Your task to perform on an android device: find snoozed emails in the gmail app Image 0: 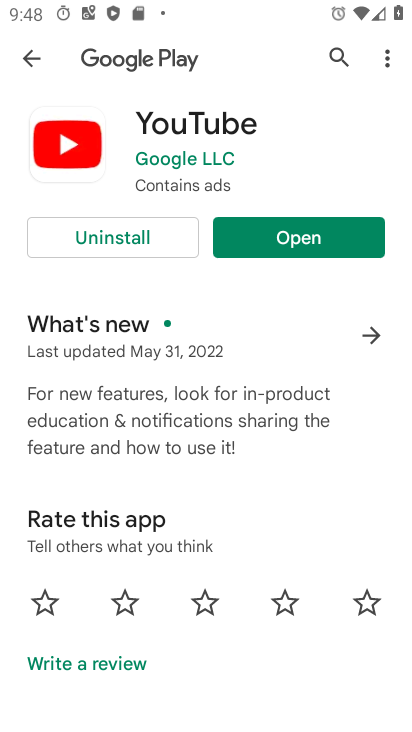
Step 0: press home button
Your task to perform on an android device: find snoozed emails in the gmail app Image 1: 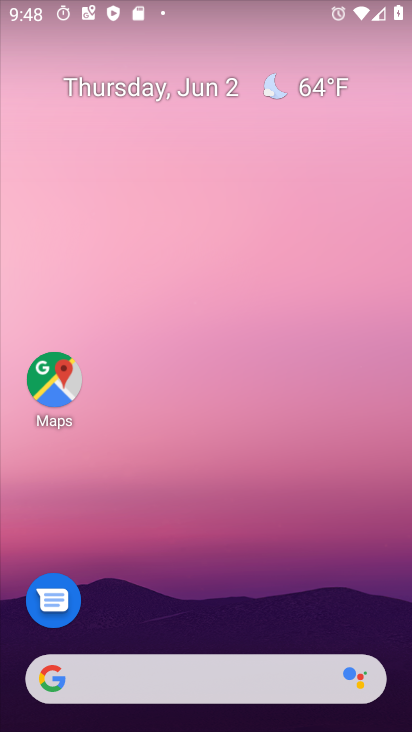
Step 1: drag from (219, 601) to (194, 76)
Your task to perform on an android device: find snoozed emails in the gmail app Image 2: 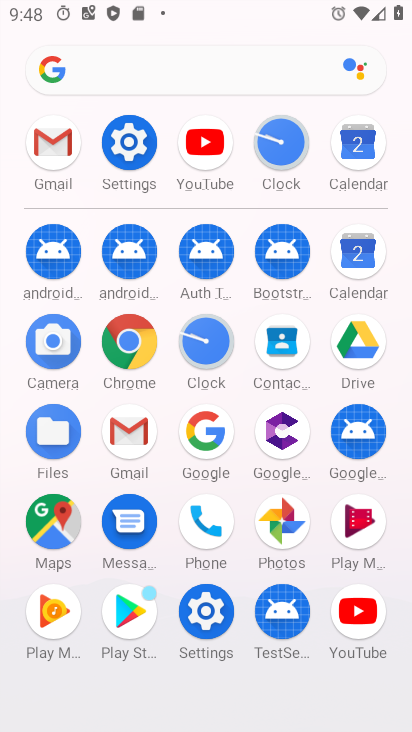
Step 2: click (112, 427)
Your task to perform on an android device: find snoozed emails in the gmail app Image 3: 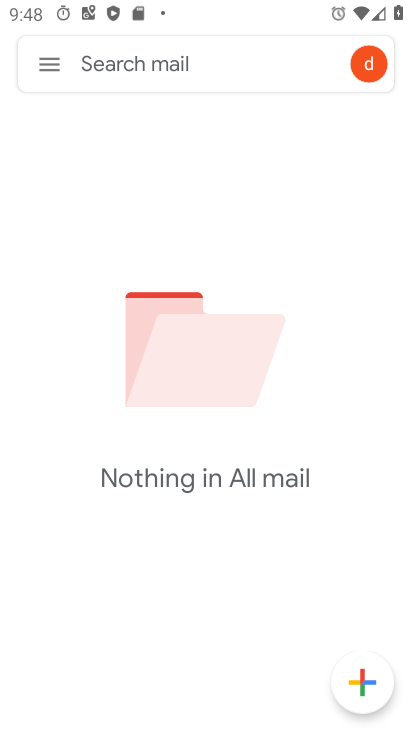
Step 3: click (46, 67)
Your task to perform on an android device: find snoozed emails in the gmail app Image 4: 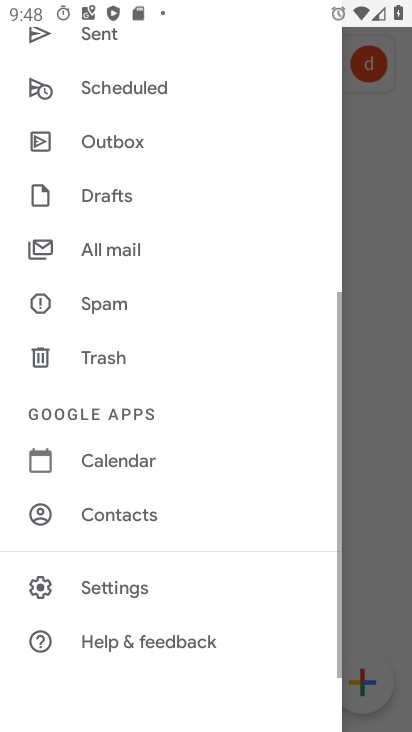
Step 4: drag from (155, 160) to (223, 592)
Your task to perform on an android device: find snoozed emails in the gmail app Image 5: 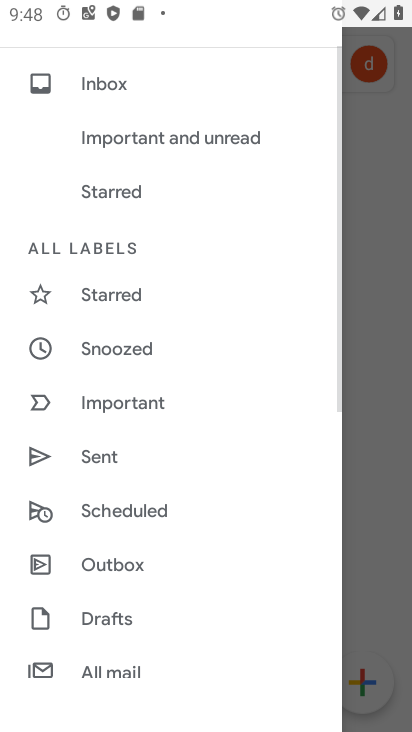
Step 5: click (119, 350)
Your task to perform on an android device: find snoozed emails in the gmail app Image 6: 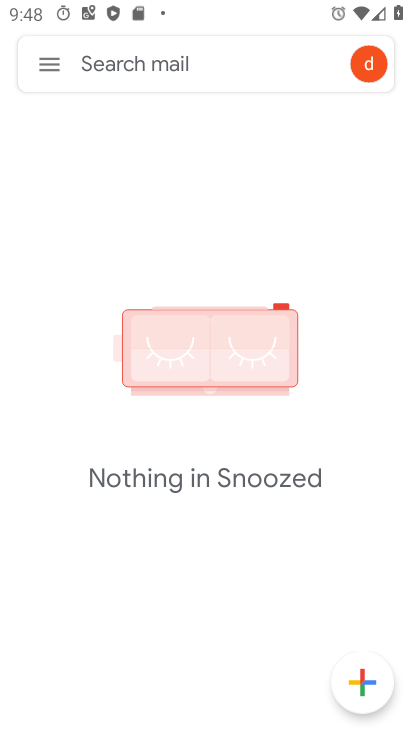
Step 6: task complete